Your task to perform on an android device: turn off data saver in the chrome app Image 0: 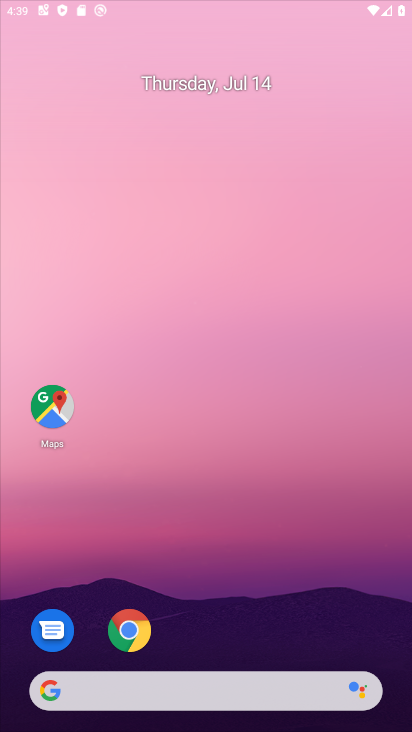
Step 0: drag from (203, 620) to (317, 15)
Your task to perform on an android device: turn off data saver in the chrome app Image 1: 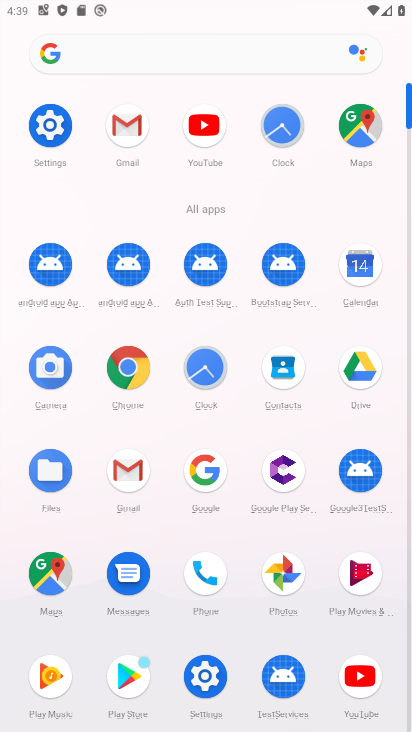
Step 1: click (130, 361)
Your task to perform on an android device: turn off data saver in the chrome app Image 2: 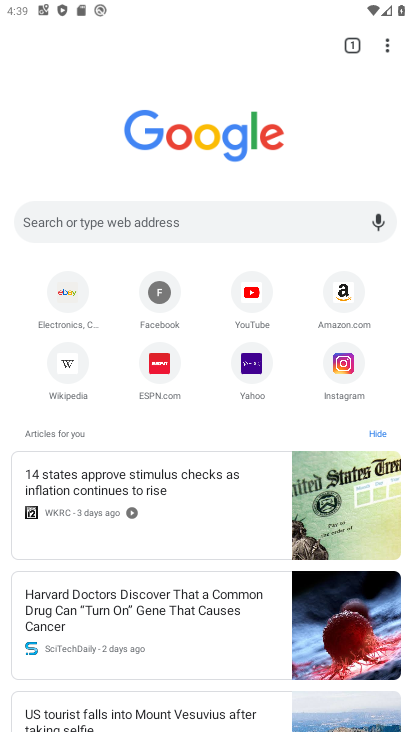
Step 2: drag from (385, 42) to (212, 388)
Your task to perform on an android device: turn off data saver in the chrome app Image 3: 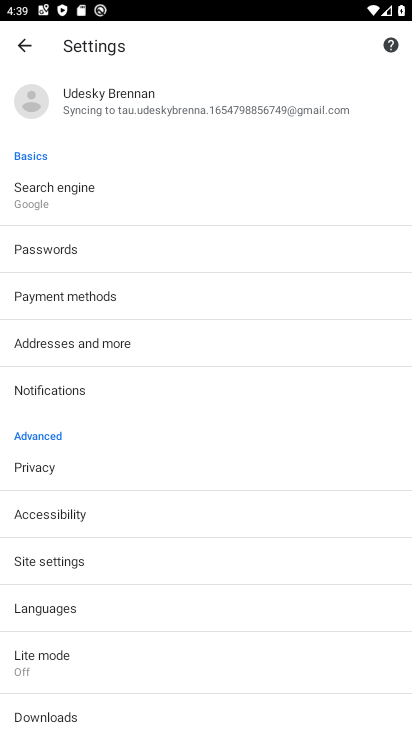
Step 3: click (49, 658)
Your task to perform on an android device: turn off data saver in the chrome app Image 4: 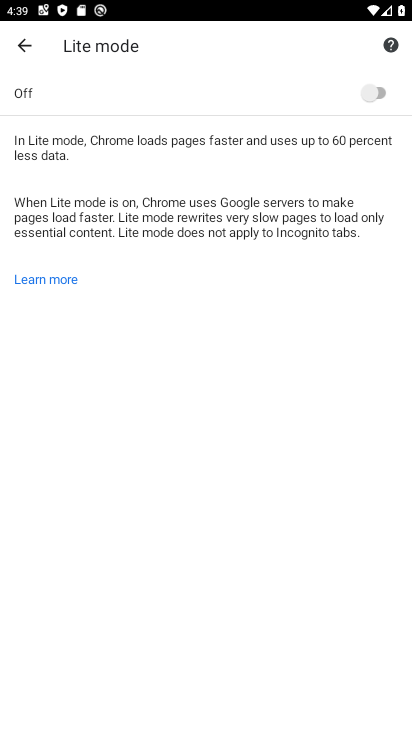
Step 4: task complete